Your task to perform on an android device: Open Yahoo.com Image 0: 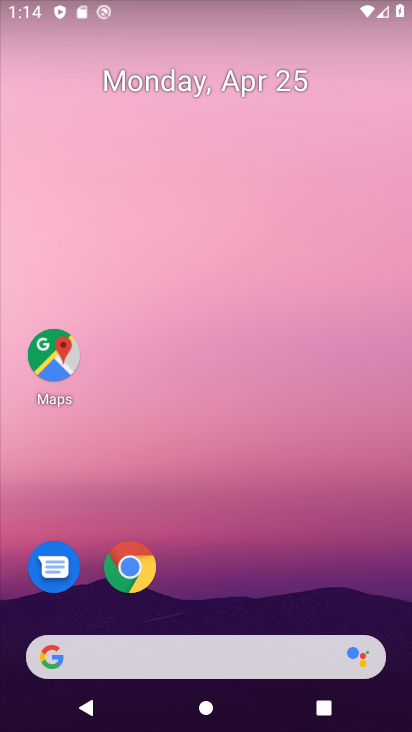
Step 0: click (147, 563)
Your task to perform on an android device: Open Yahoo.com Image 1: 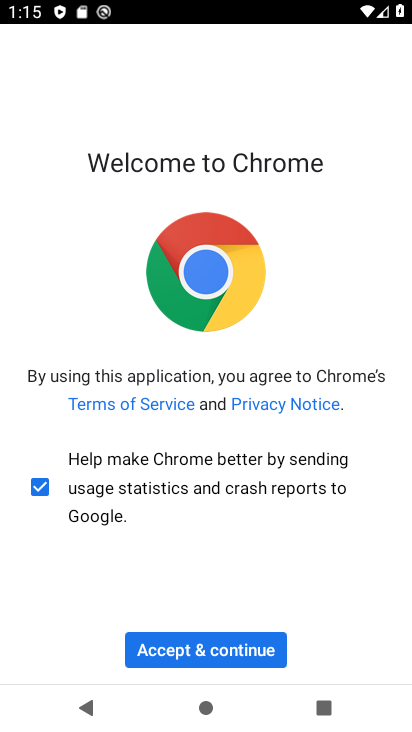
Step 1: click (239, 640)
Your task to perform on an android device: Open Yahoo.com Image 2: 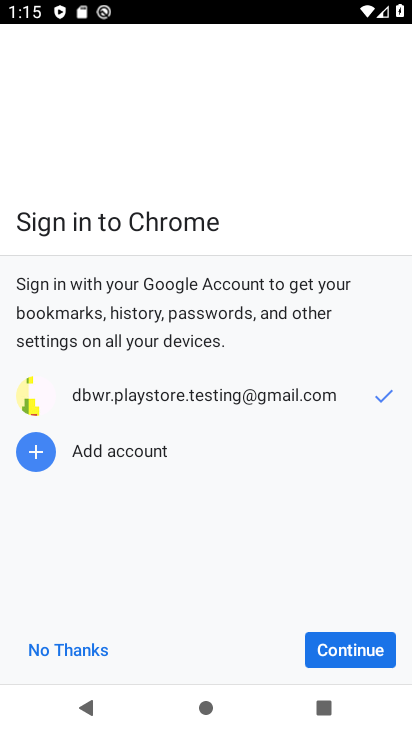
Step 2: click (364, 655)
Your task to perform on an android device: Open Yahoo.com Image 3: 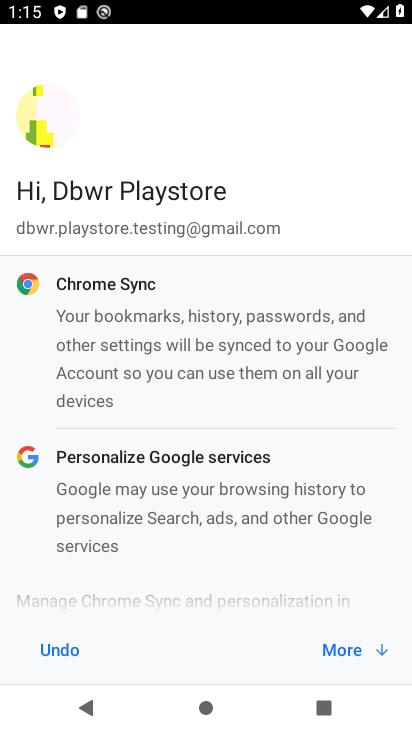
Step 3: click (358, 649)
Your task to perform on an android device: Open Yahoo.com Image 4: 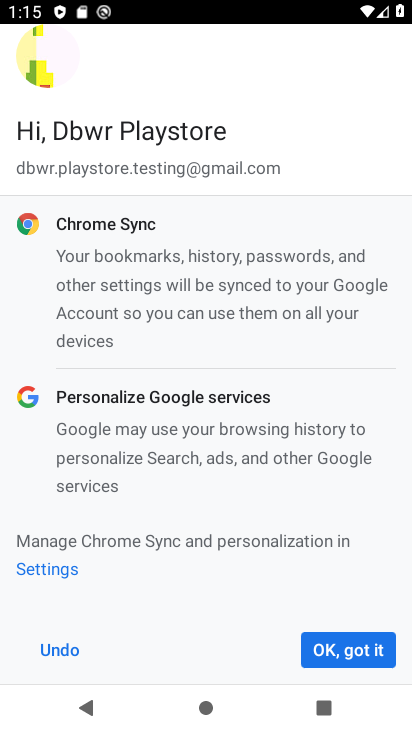
Step 4: click (359, 651)
Your task to perform on an android device: Open Yahoo.com Image 5: 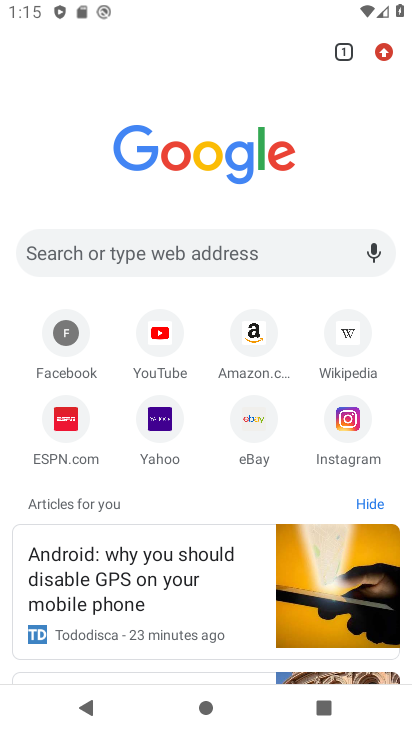
Step 5: click (155, 425)
Your task to perform on an android device: Open Yahoo.com Image 6: 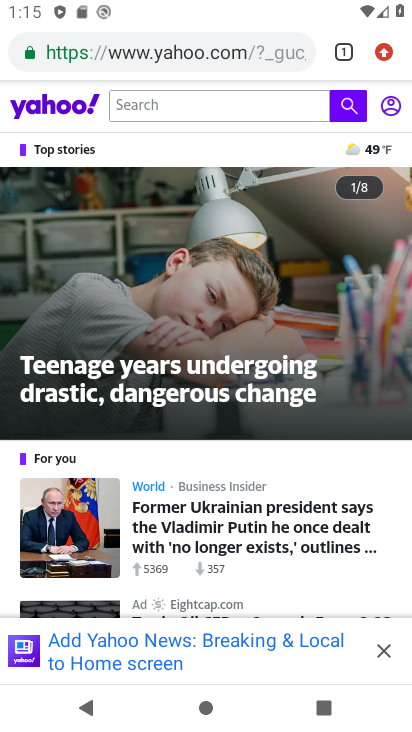
Step 6: task complete